Your task to perform on an android device: turn off sleep mode Image 0: 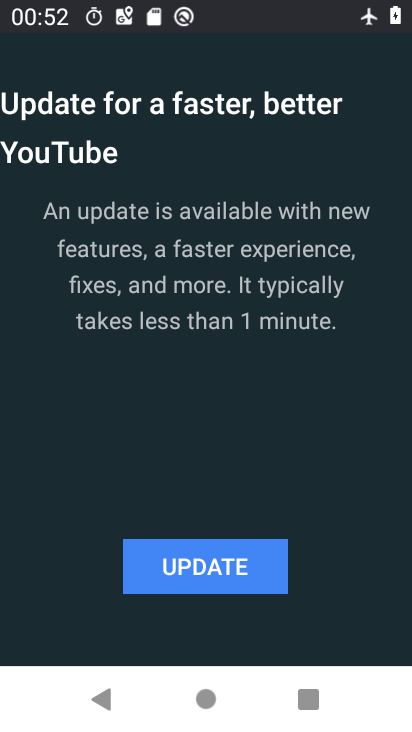
Step 0: press back button
Your task to perform on an android device: turn off sleep mode Image 1: 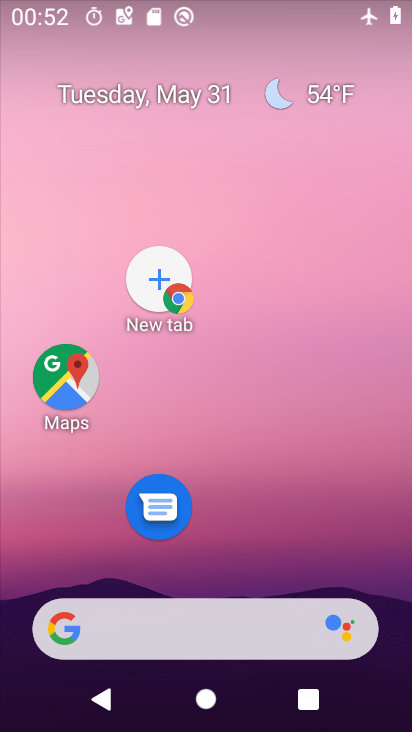
Step 1: drag from (274, 690) to (176, 47)
Your task to perform on an android device: turn off sleep mode Image 2: 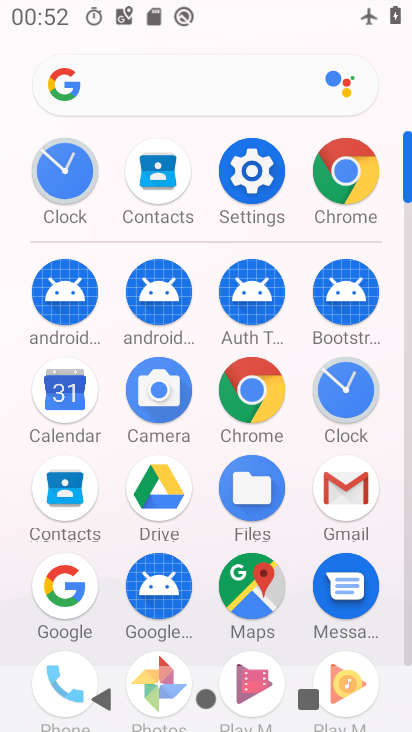
Step 2: click (244, 168)
Your task to perform on an android device: turn off sleep mode Image 3: 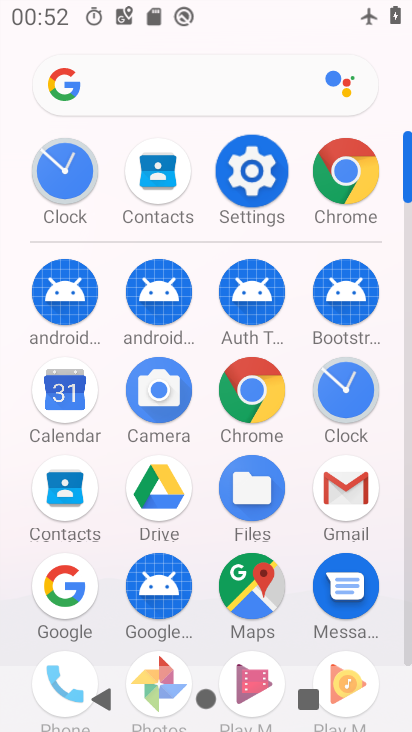
Step 3: click (244, 169)
Your task to perform on an android device: turn off sleep mode Image 4: 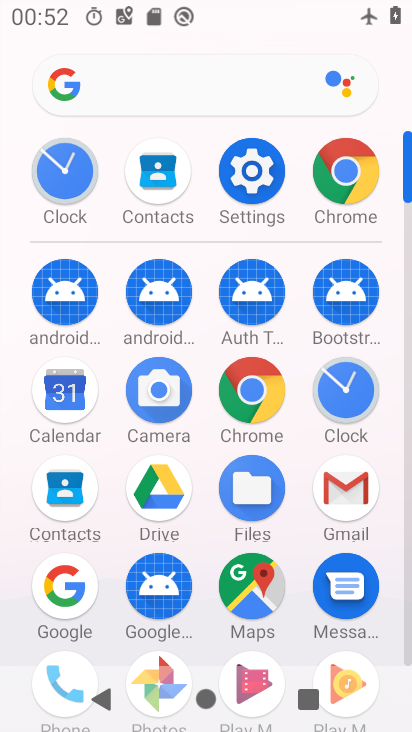
Step 4: click (245, 170)
Your task to perform on an android device: turn off sleep mode Image 5: 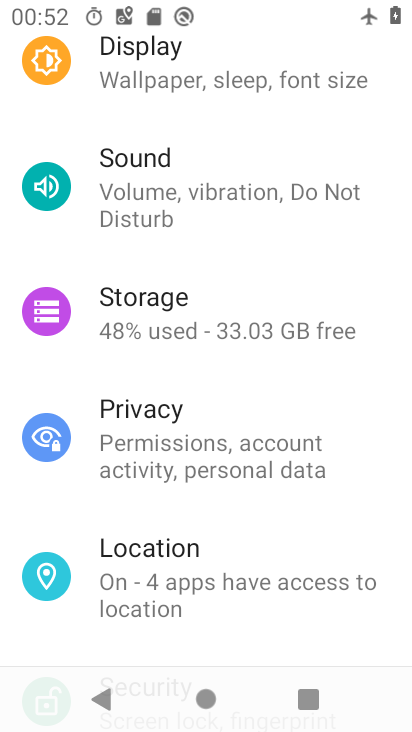
Step 5: drag from (202, 193) to (257, 543)
Your task to perform on an android device: turn off sleep mode Image 6: 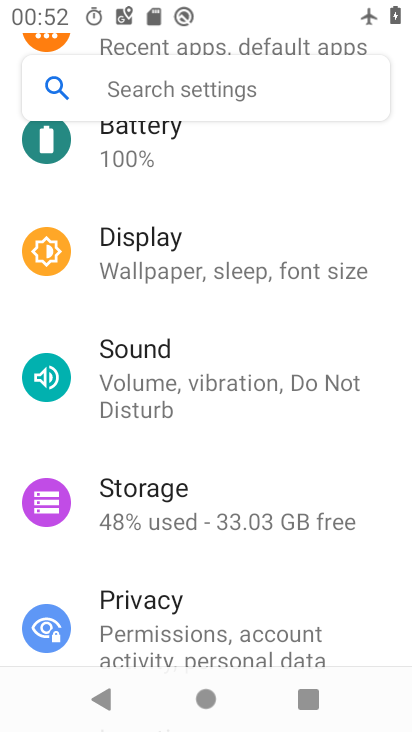
Step 6: click (151, 255)
Your task to perform on an android device: turn off sleep mode Image 7: 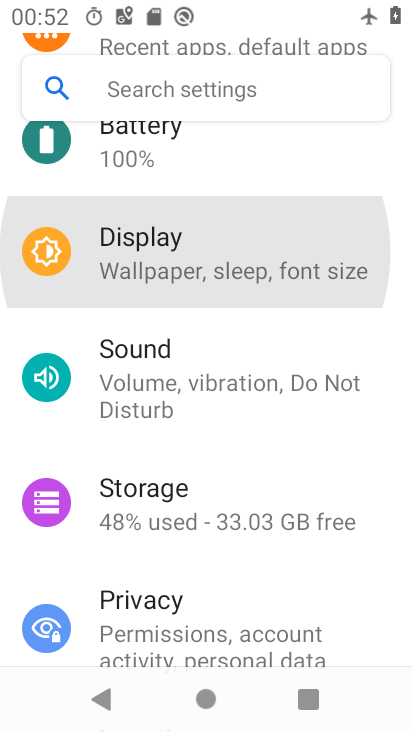
Step 7: click (151, 255)
Your task to perform on an android device: turn off sleep mode Image 8: 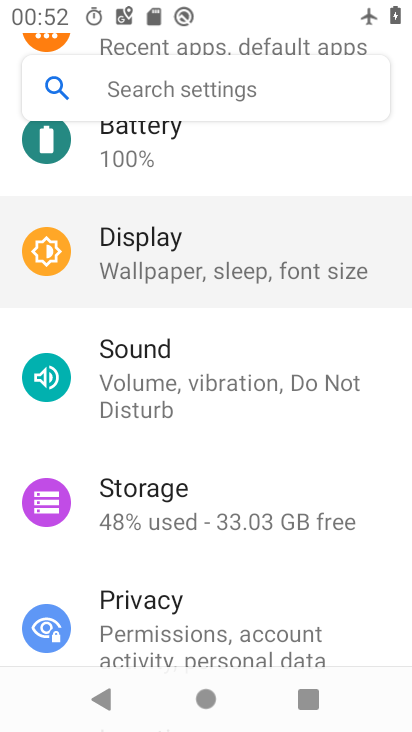
Step 8: click (151, 255)
Your task to perform on an android device: turn off sleep mode Image 9: 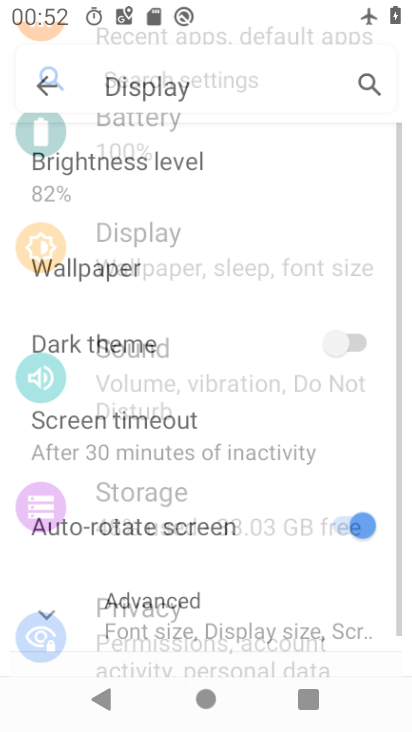
Step 9: click (151, 255)
Your task to perform on an android device: turn off sleep mode Image 10: 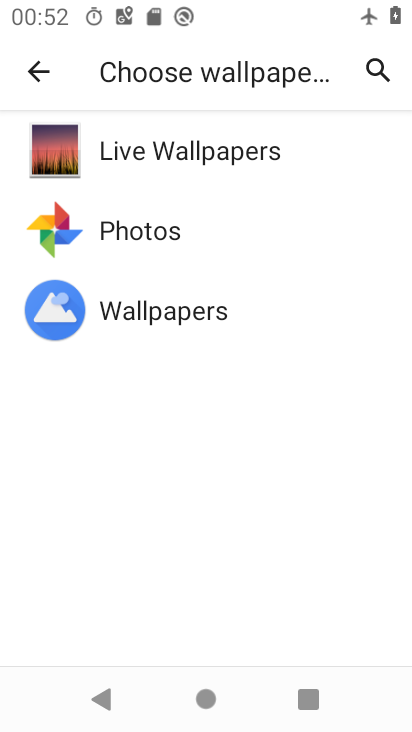
Step 10: click (37, 69)
Your task to perform on an android device: turn off sleep mode Image 11: 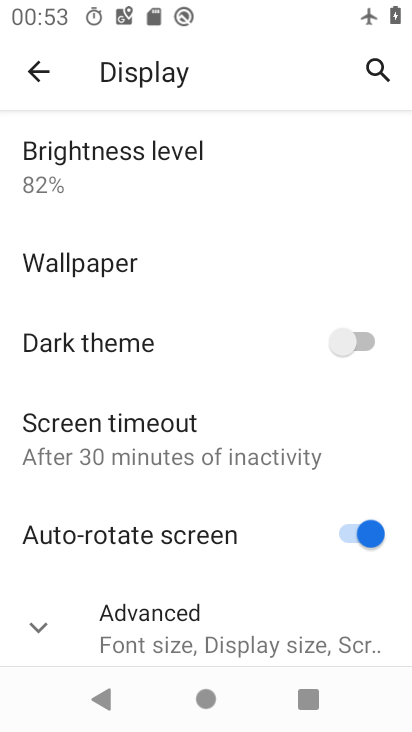
Step 11: click (126, 448)
Your task to perform on an android device: turn off sleep mode Image 12: 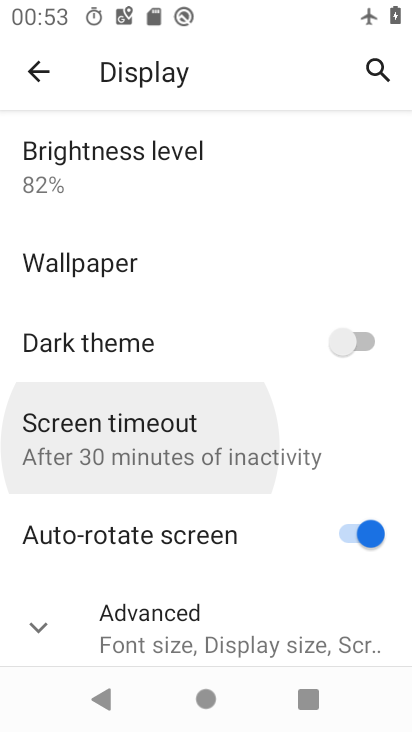
Step 12: click (126, 449)
Your task to perform on an android device: turn off sleep mode Image 13: 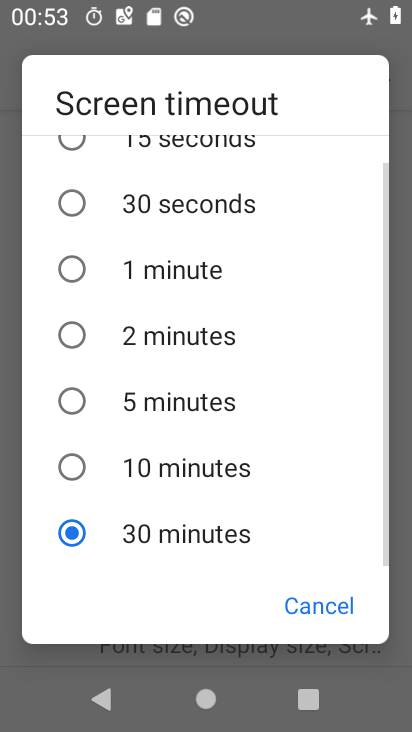
Step 13: click (70, 466)
Your task to perform on an android device: turn off sleep mode Image 14: 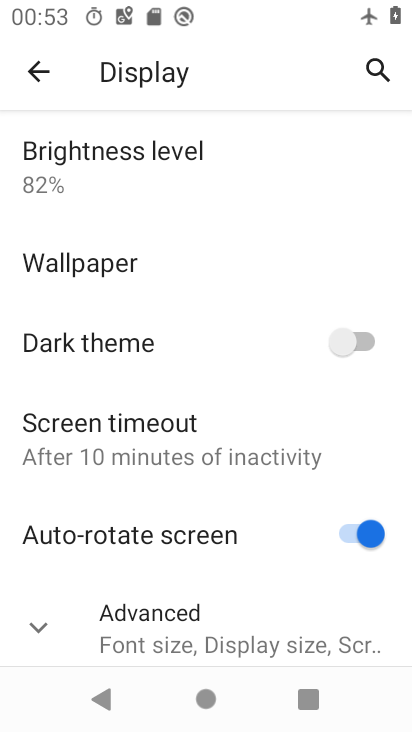
Step 14: task complete